Your task to perform on an android device: What's on my calendar tomorrow? Image 0: 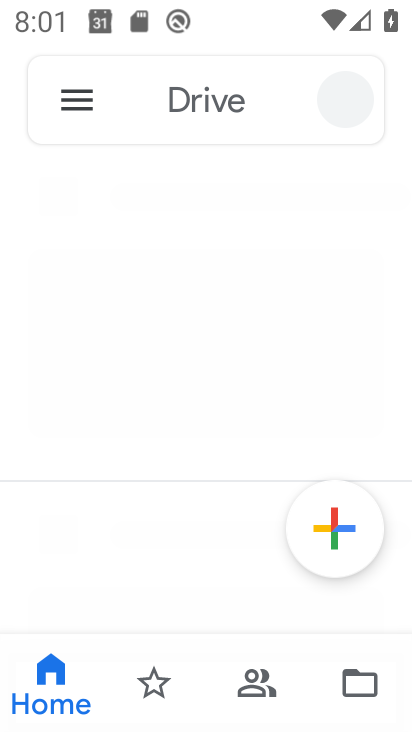
Step 0: drag from (240, 461) to (315, 51)
Your task to perform on an android device: What's on my calendar tomorrow? Image 1: 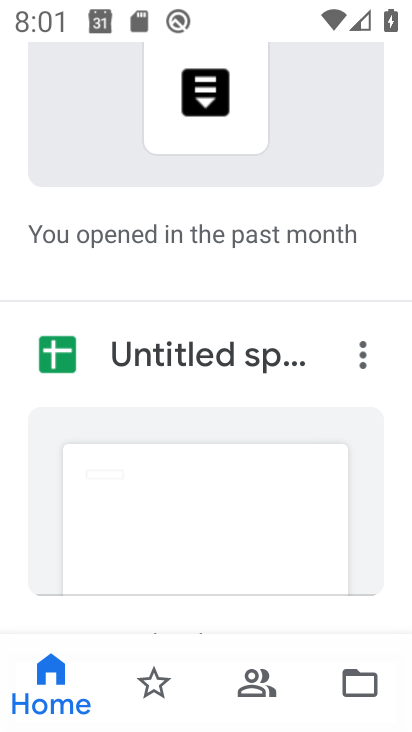
Step 1: press home button
Your task to perform on an android device: What's on my calendar tomorrow? Image 2: 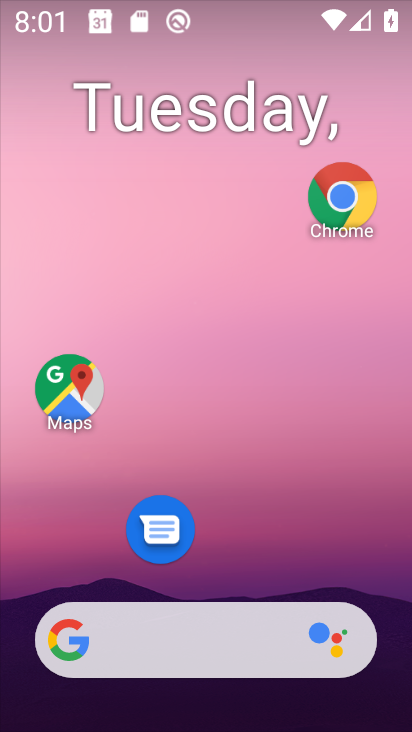
Step 2: drag from (213, 543) to (248, 106)
Your task to perform on an android device: What's on my calendar tomorrow? Image 3: 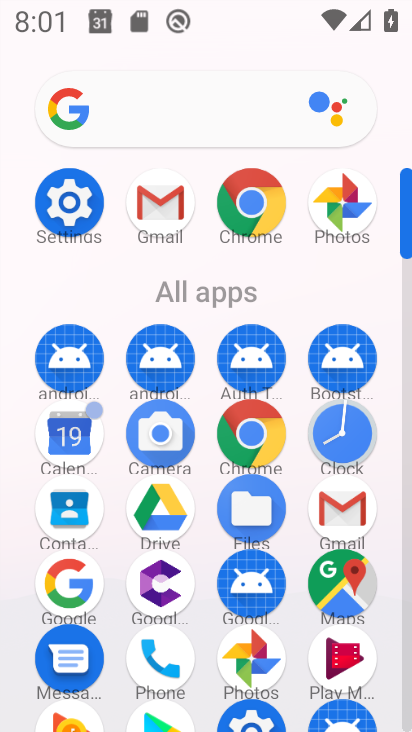
Step 3: click (69, 445)
Your task to perform on an android device: What's on my calendar tomorrow? Image 4: 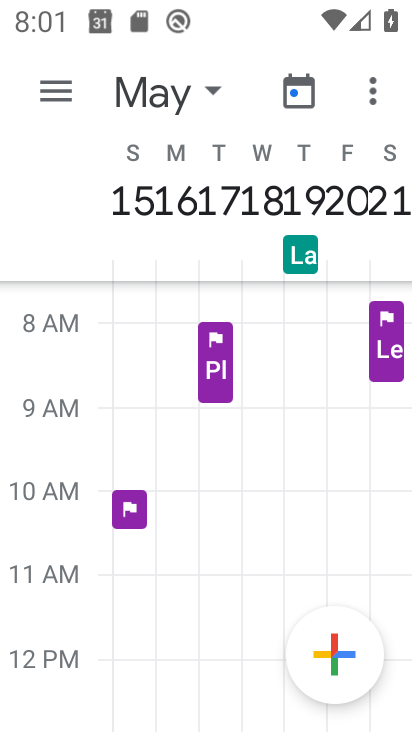
Step 4: click (52, 86)
Your task to perform on an android device: What's on my calendar tomorrow? Image 5: 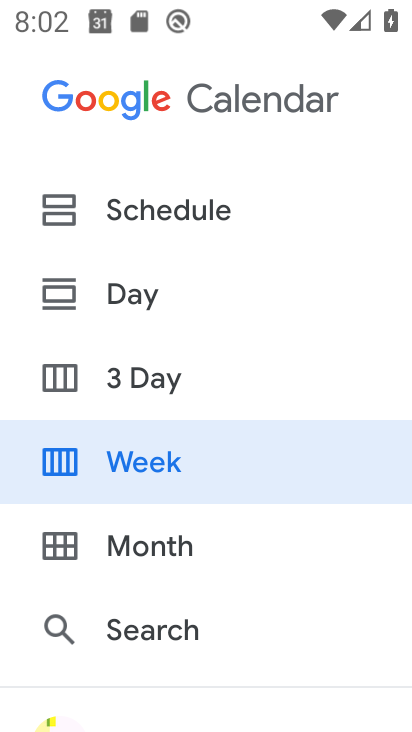
Step 5: click (142, 371)
Your task to perform on an android device: What's on my calendar tomorrow? Image 6: 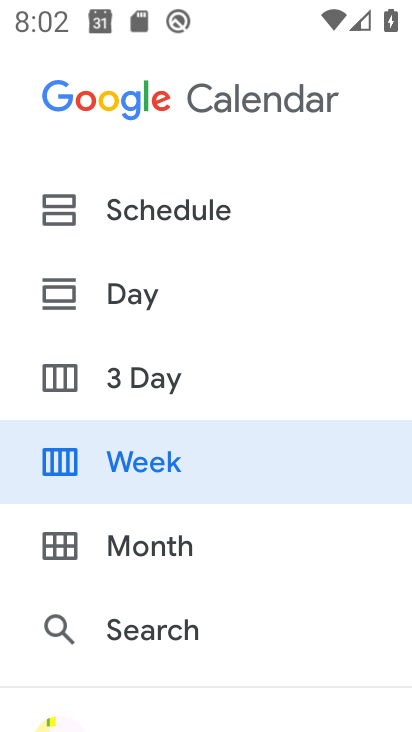
Step 6: click (119, 369)
Your task to perform on an android device: What's on my calendar tomorrow? Image 7: 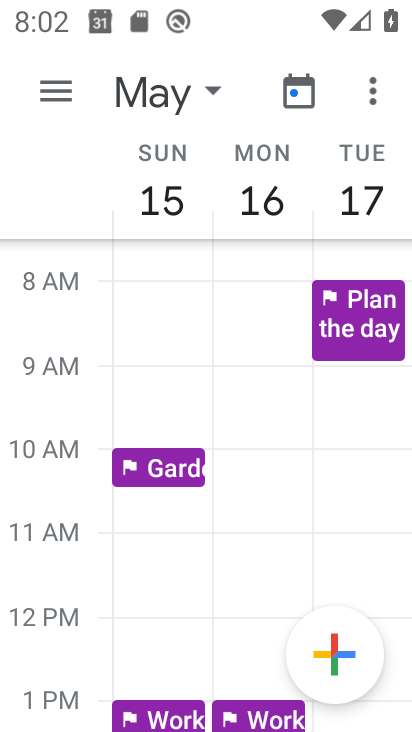
Step 7: click (167, 99)
Your task to perform on an android device: What's on my calendar tomorrow? Image 8: 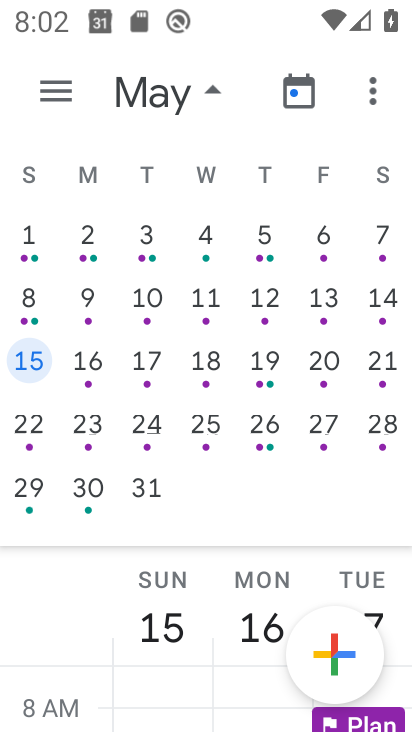
Step 8: drag from (63, 262) to (407, 305)
Your task to perform on an android device: What's on my calendar tomorrow? Image 9: 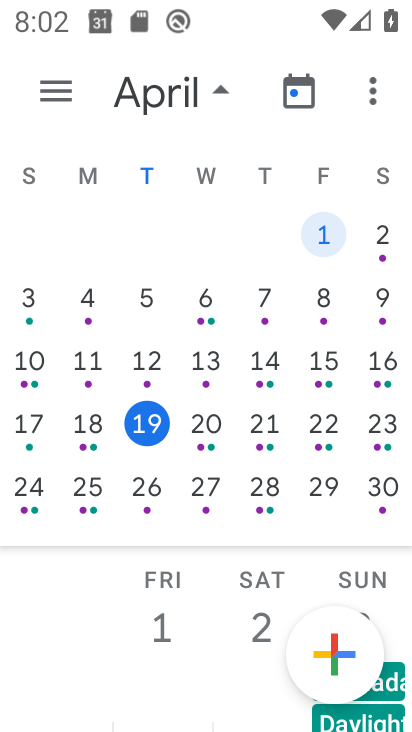
Step 9: click (158, 431)
Your task to perform on an android device: What's on my calendar tomorrow? Image 10: 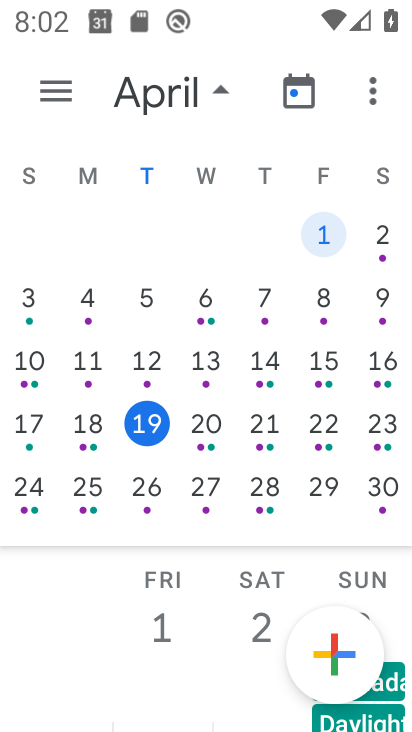
Step 10: click (158, 431)
Your task to perform on an android device: What's on my calendar tomorrow? Image 11: 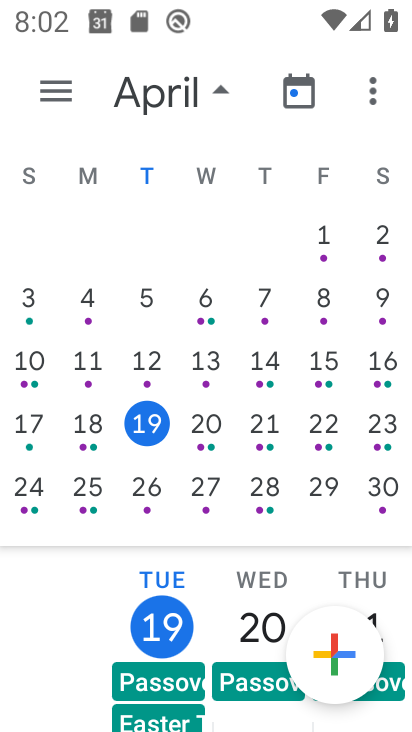
Step 11: click (51, 96)
Your task to perform on an android device: What's on my calendar tomorrow? Image 12: 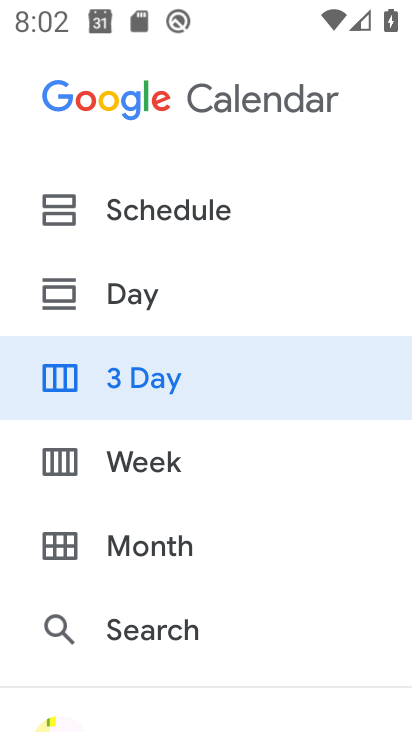
Step 12: click (164, 367)
Your task to perform on an android device: What's on my calendar tomorrow? Image 13: 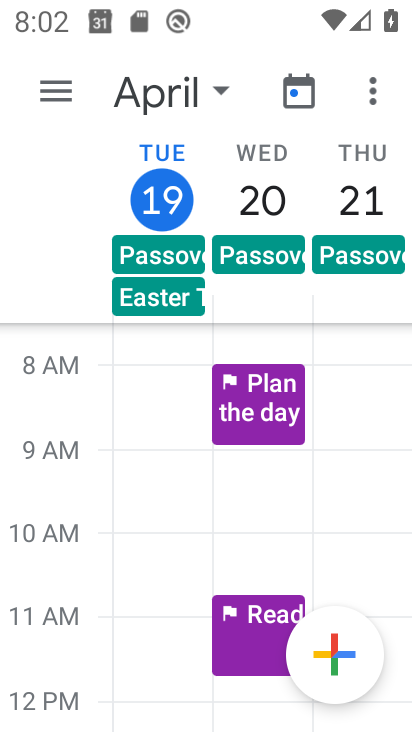
Step 13: task complete